Your task to perform on an android device: turn on notifications settings in the gmail app Image 0: 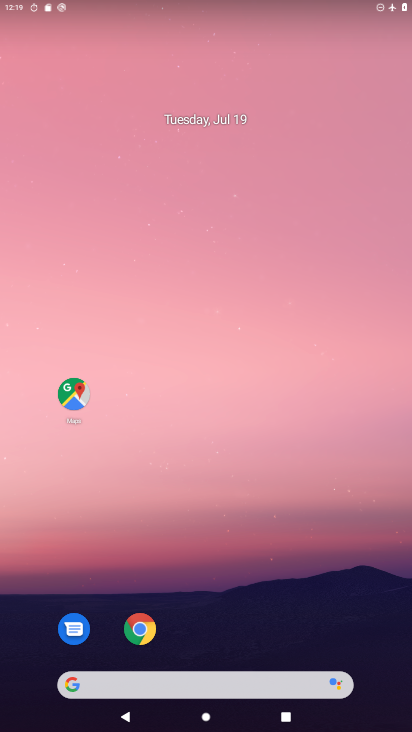
Step 0: drag from (361, 620) to (315, 103)
Your task to perform on an android device: turn on notifications settings in the gmail app Image 1: 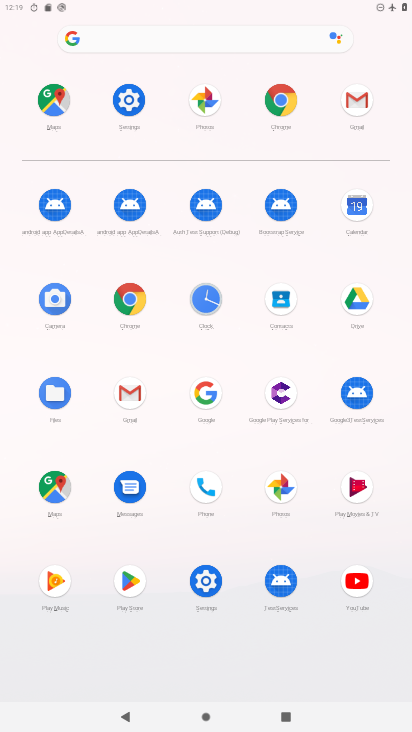
Step 1: click (369, 95)
Your task to perform on an android device: turn on notifications settings in the gmail app Image 2: 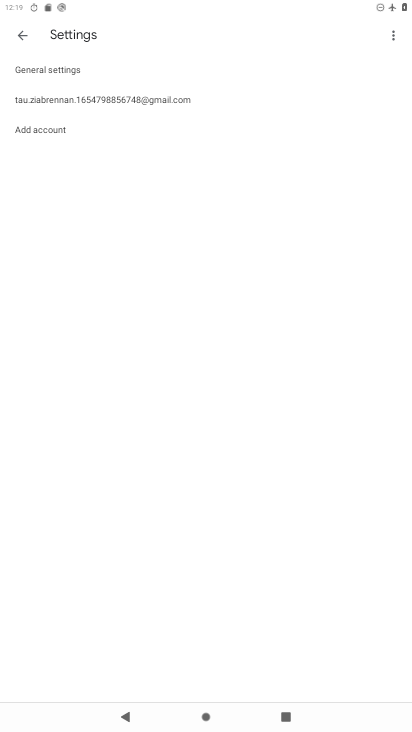
Step 2: click (73, 96)
Your task to perform on an android device: turn on notifications settings in the gmail app Image 3: 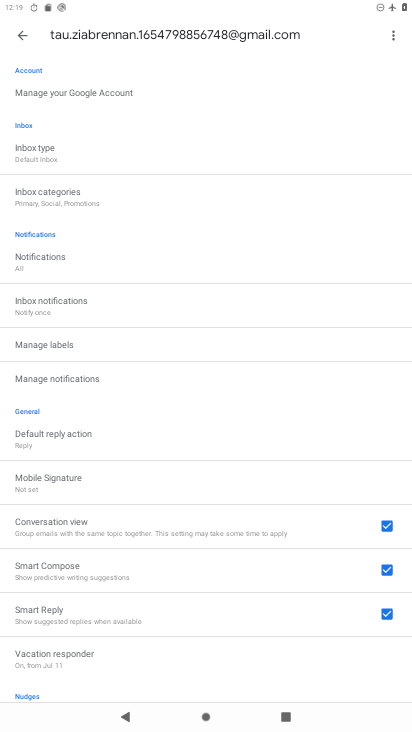
Step 3: click (64, 383)
Your task to perform on an android device: turn on notifications settings in the gmail app Image 4: 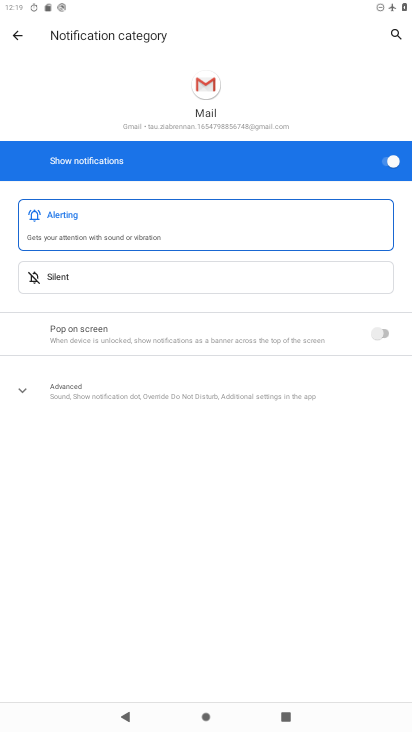
Step 4: task complete